Your task to perform on an android device: delete a single message in the gmail app Image 0: 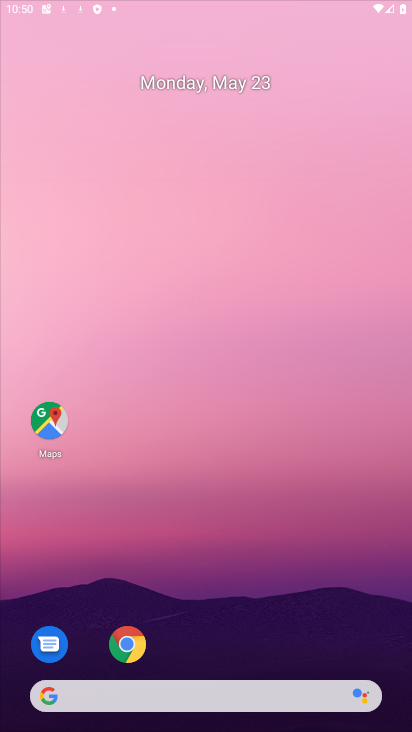
Step 0: press home button
Your task to perform on an android device: delete a single message in the gmail app Image 1: 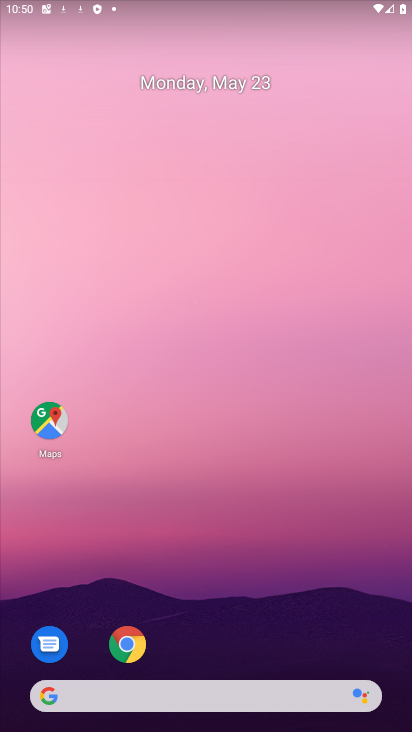
Step 1: drag from (295, 705) to (249, 249)
Your task to perform on an android device: delete a single message in the gmail app Image 2: 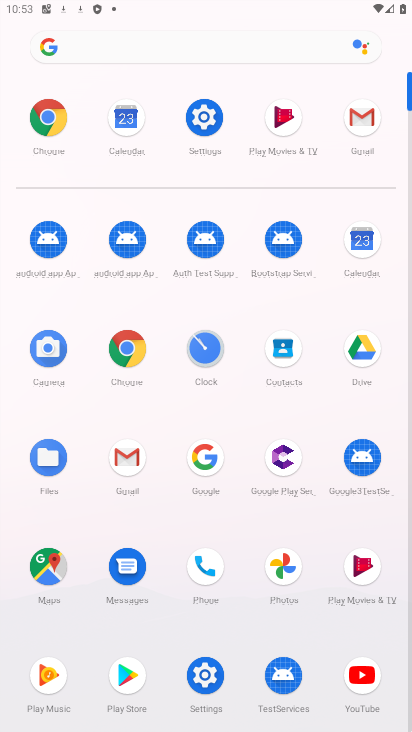
Step 2: click (359, 123)
Your task to perform on an android device: delete a single message in the gmail app Image 3: 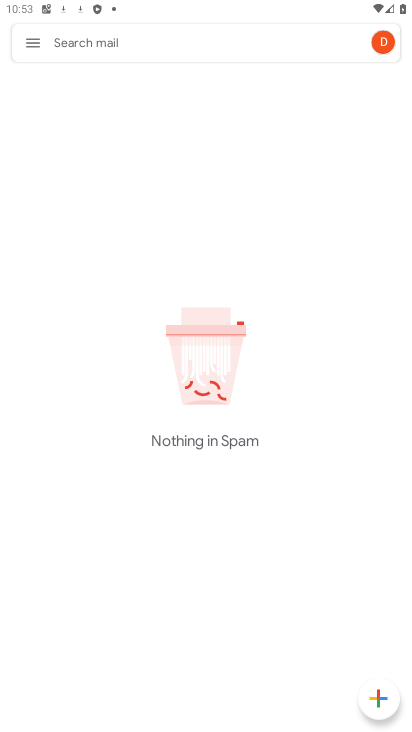
Step 3: task complete